Your task to perform on an android device: check the backup settings in the google photos Image 0: 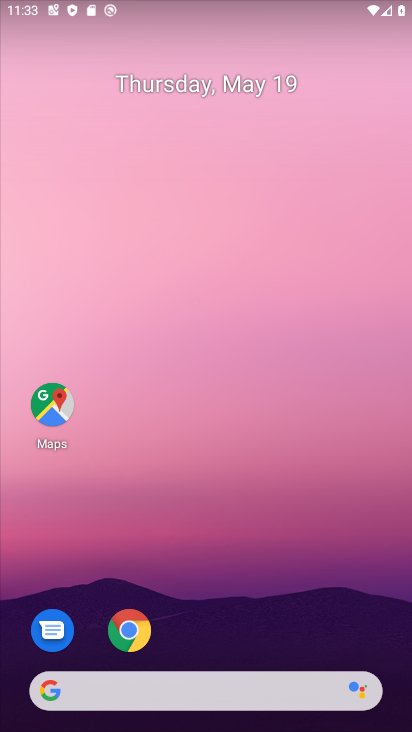
Step 0: drag from (262, 528) to (260, 114)
Your task to perform on an android device: check the backup settings in the google photos Image 1: 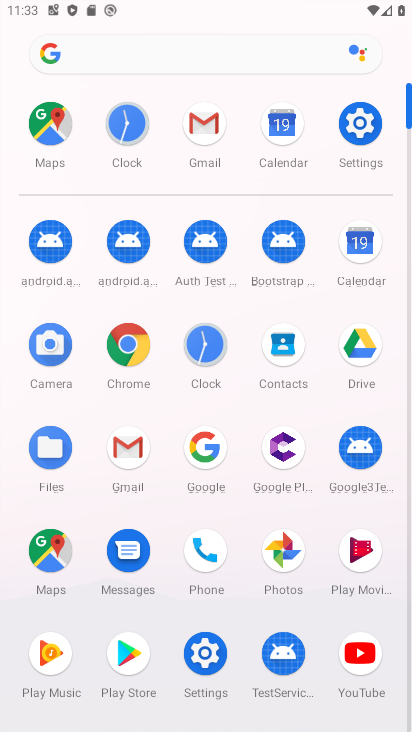
Step 1: click (281, 549)
Your task to perform on an android device: check the backup settings in the google photos Image 2: 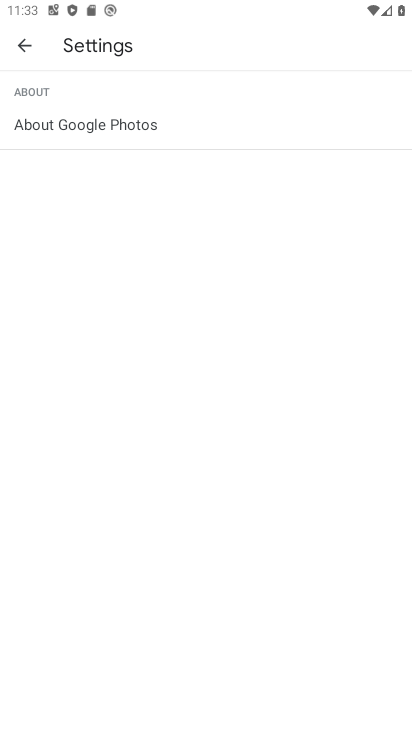
Step 2: press back button
Your task to perform on an android device: check the backup settings in the google photos Image 3: 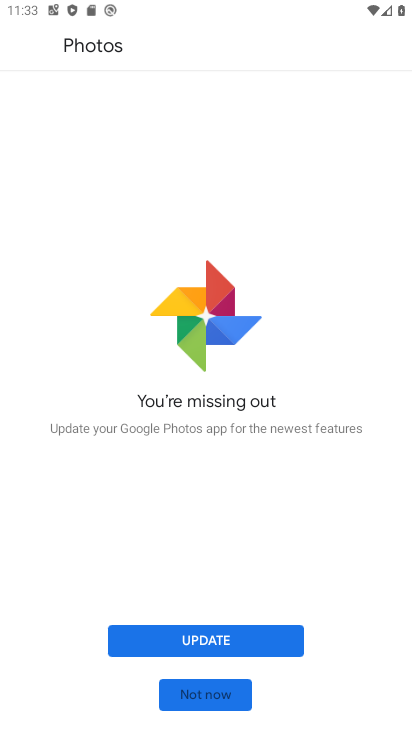
Step 3: click (172, 634)
Your task to perform on an android device: check the backup settings in the google photos Image 4: 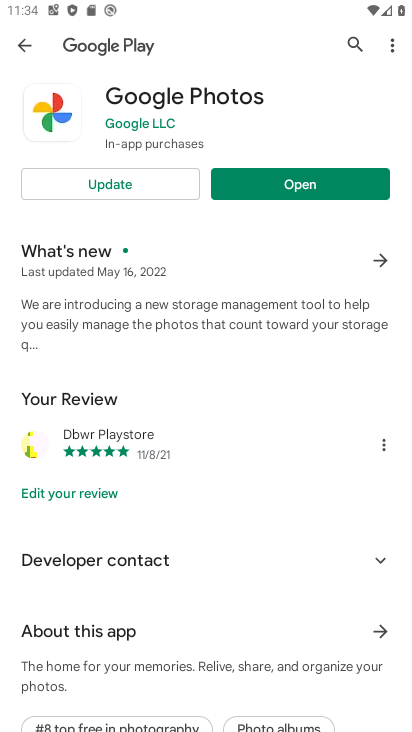
Step 4: click (147, 172)
Your task to perform on an android device: check the backup settings in the google photos Image 5: 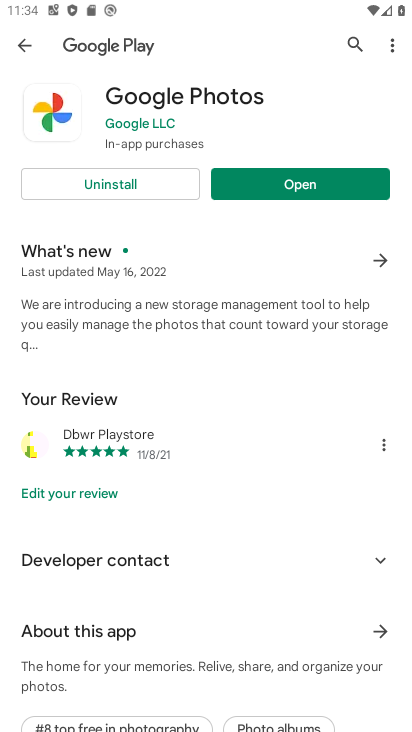
Step 5: click (280, 177)
Your task to perform on an android device: check the backup settings in the google photos Image 6: 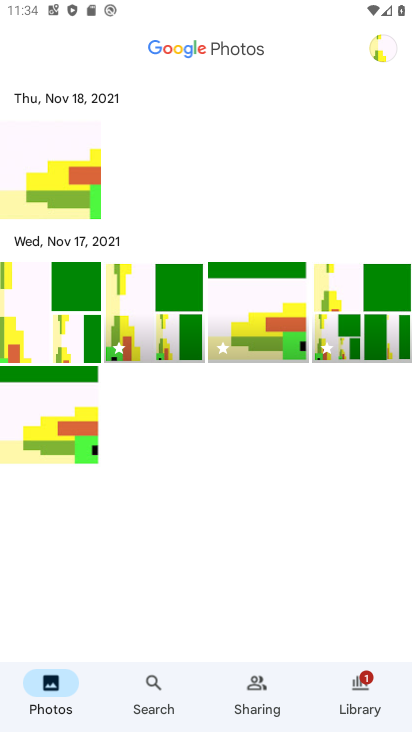
Step 6: click (389, 46)
Your task to perform on an android device: check the backup settings in the google photos Image 7: 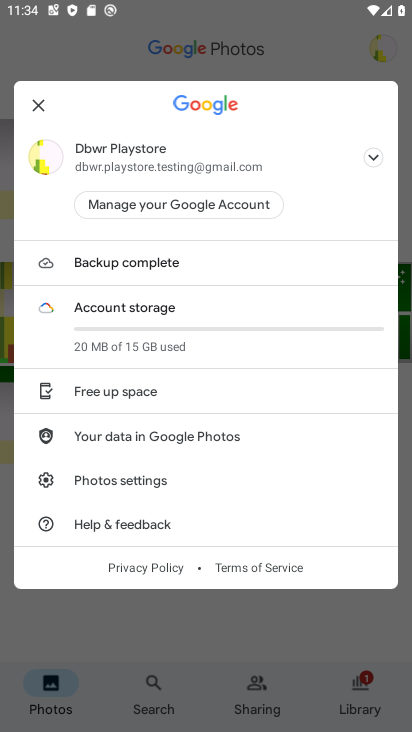
Step 7: click (126, 482)
Your task to perform on an android device: check the backup settings in the google photos Image 8: 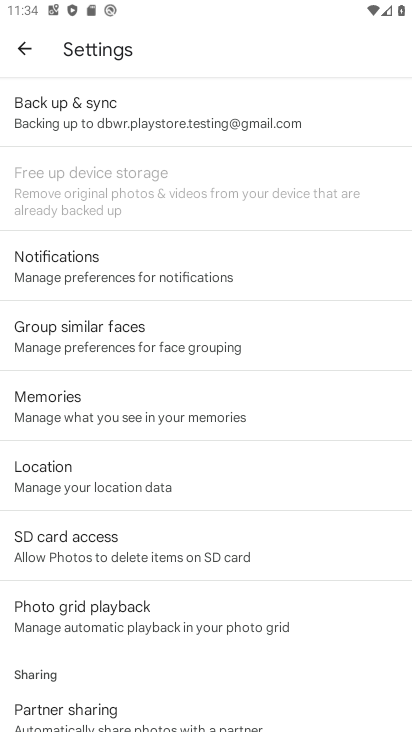
Step 8: click (72, 127)
Your task to perform on an android device: check the backup settings in the google photos Image 9: 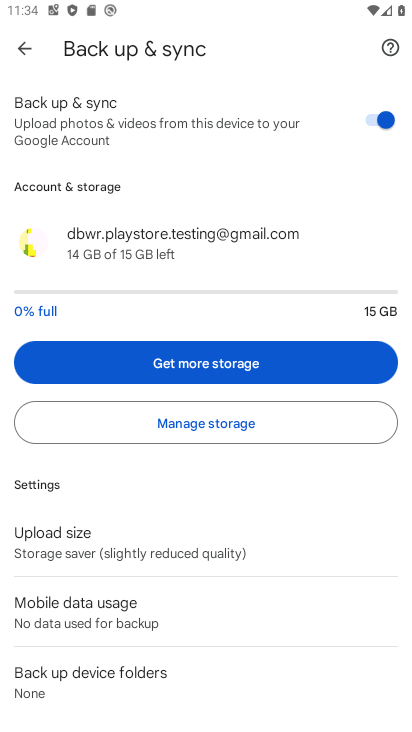
Step 9: task complete